Your task to perform on an android device: Play the last video I watched on Youtube Image 0: 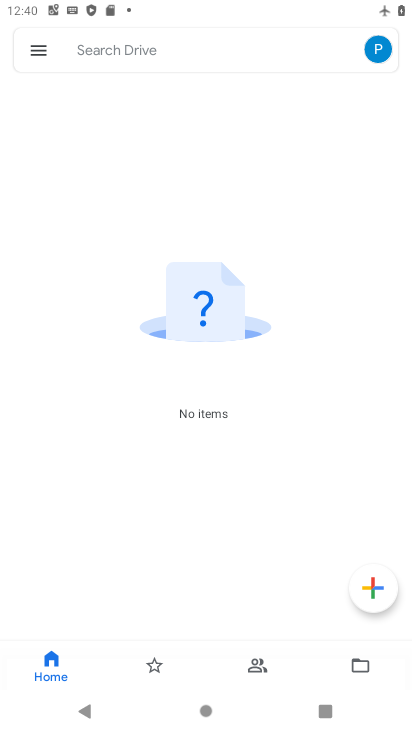
Step 0: press home button
Your task to perform on an android device: Play the last video I watched on Youtube Image 1: 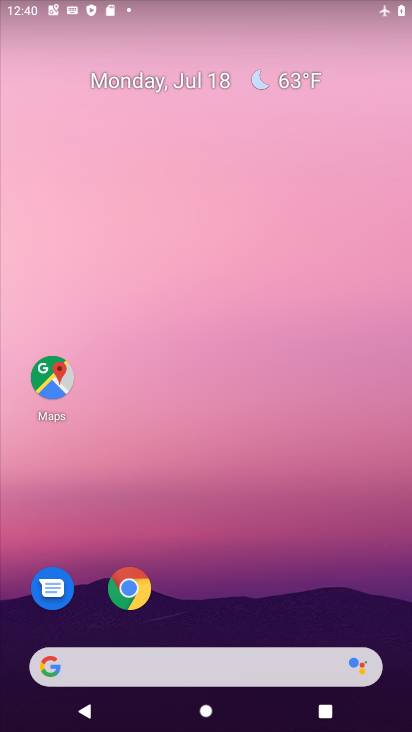
Step 1: drag from (236, 617) to (202, 54)
Your task to perform on an android device: Play the last video I watched on Youtube Image 2: 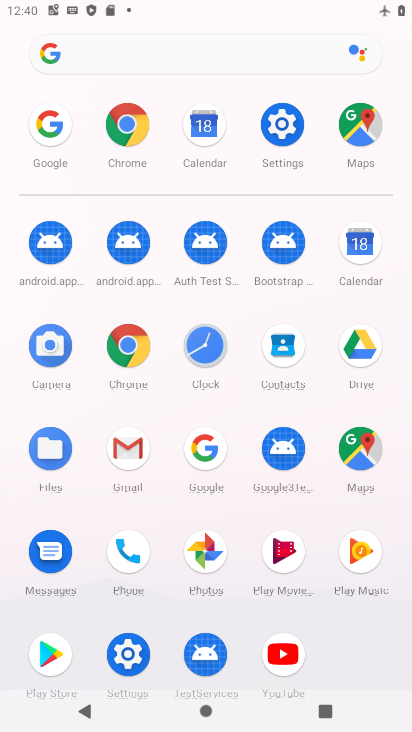
Step 2: click (288, 654)
Your task to perform on an android device: Play the last video I watched on Youtube Image 3: 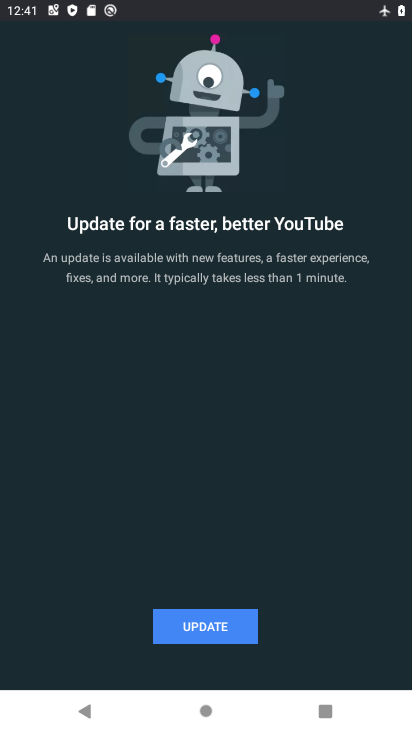
Step 3: task complete